Your task to perform on an android device: turn on javascript in the chrome app Image 0: 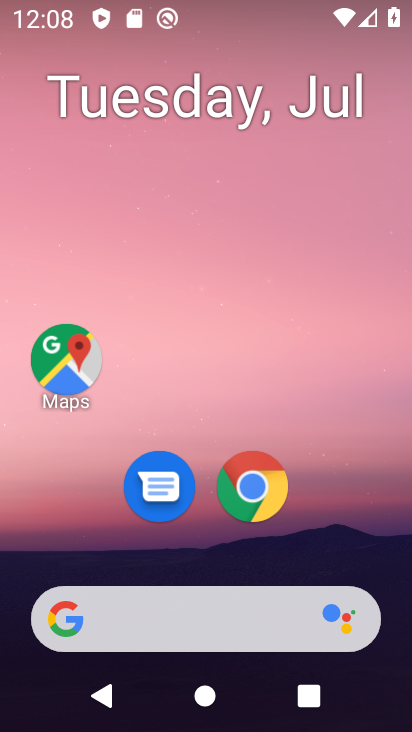
Step 0: drag from (322, 526) to (358, 104)
Your task to perform on an android device: turn on javascript in the chrome app Image 1: 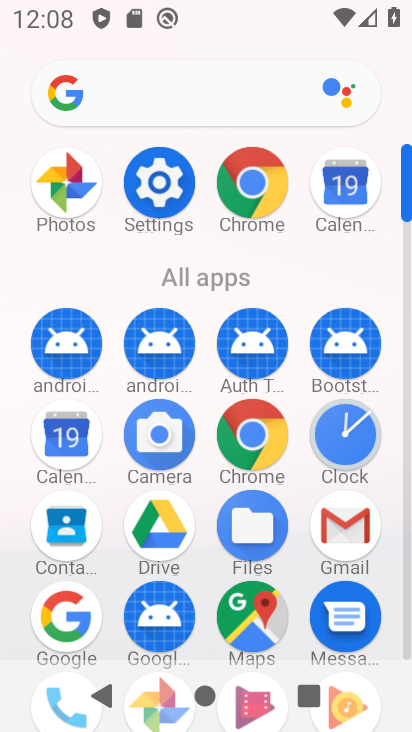
Step 1: click (252, 186)
Your task to perform on an android device: turn on javascript in the chrome app Image 2: 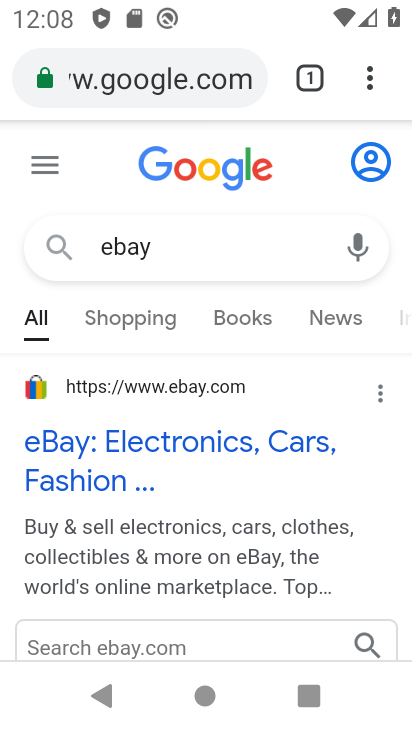
Step 2: click (371, 86)
Your task to perform on an android device: turn on javascript in the chrome app Image 3: 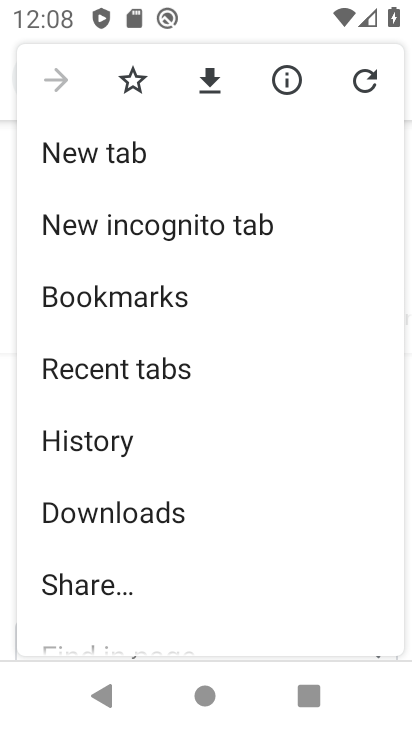
Step 3: drag from (317, 559) to (337, 235)
Your task to perform on an android device: turn on javascript in the chrome app Image 4: 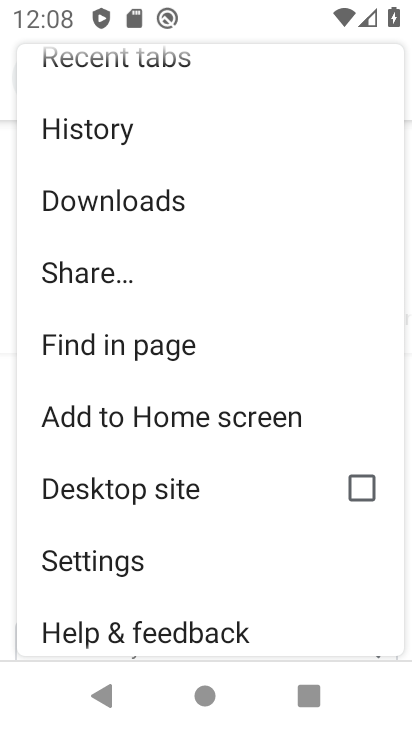
Step 4: drag from (267, 537) to (308, 292)
Your task to perform on an android device: turn on javascript in the chrome app Image 5: 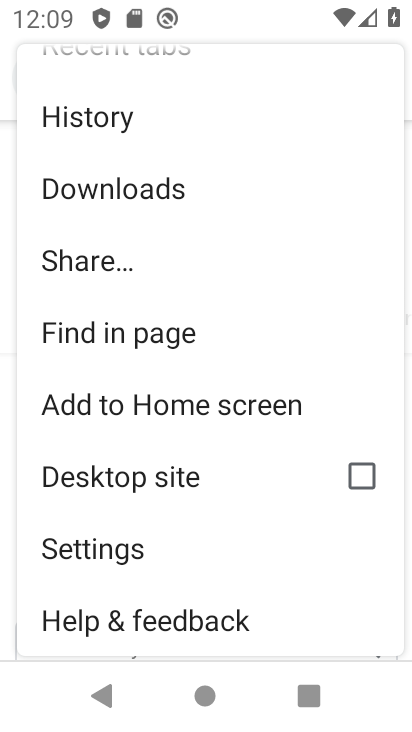
Step 5: click (146, 555)
Your task to perform on an android device: turn on javascript in the chrome app Image 6: 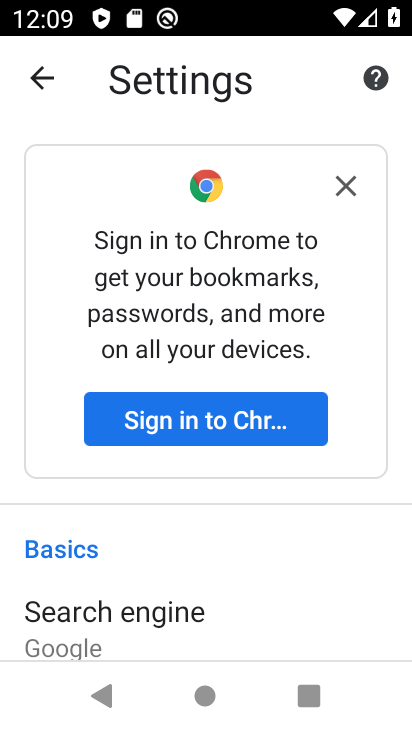
Step 6: click (336, 186)
Your task to perform on an android device: turn on javascript in the chrome app Image 7: 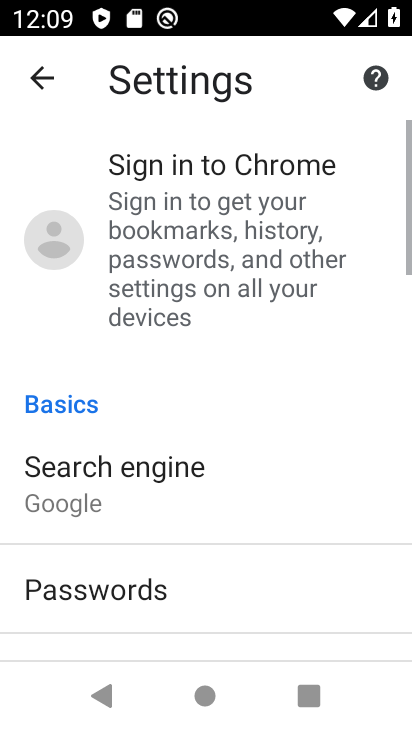
Step 7: drag from (323, 528) to (331, 380)
Your task to perform on an android device: turn on javascript in the chrome app Image 8: 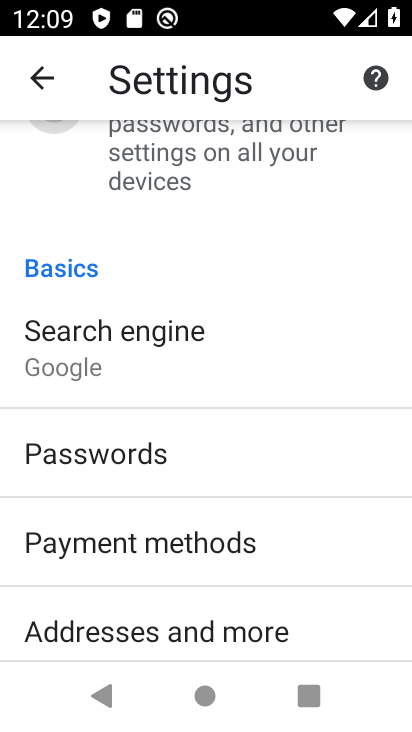
Step 8: drag from (330, 532) to (330, 413)
Your task to perform on an android device: turn on javascript in the chrome app Image 9: 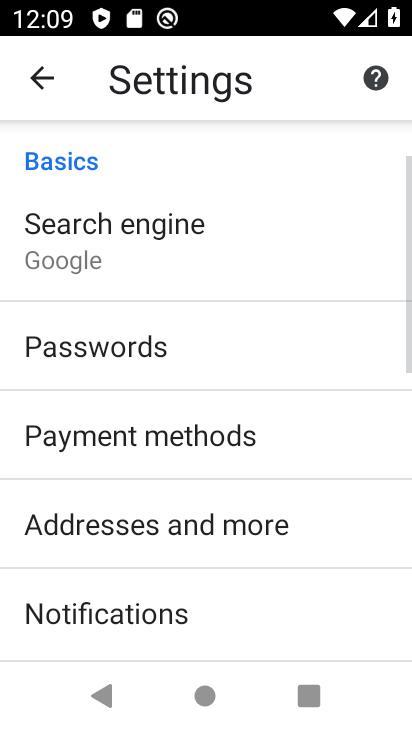
Step 9: drag from (335, 577) to (341, 436)
Your task to perform on an android device: turn on javascript in the chrome app Image 10: 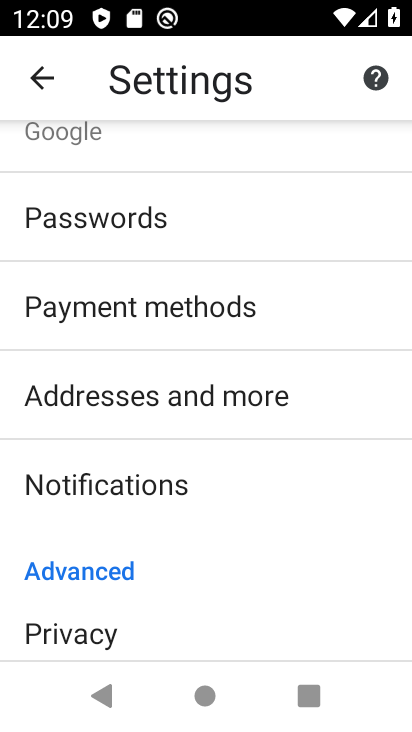
Step 10: drag from (323, 575) to (333, 405)
Your task to perform on an android device: turn on javascript in the chrome app Image 11: 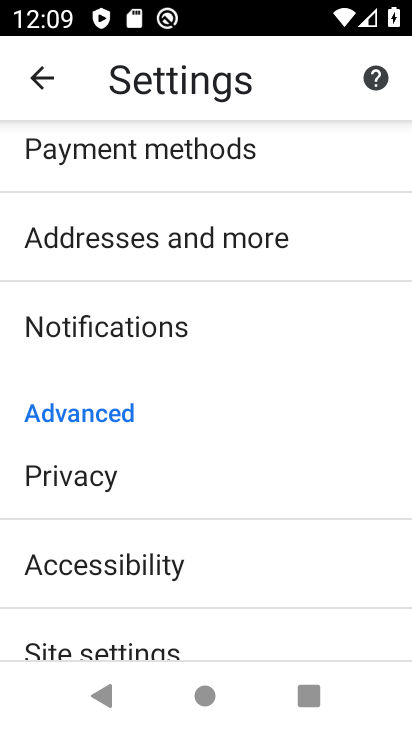
Step 11: drag from (313, 551) to (313, 418)
Your task to perform on an android device: turn on javascript in the chrome app Image 12: 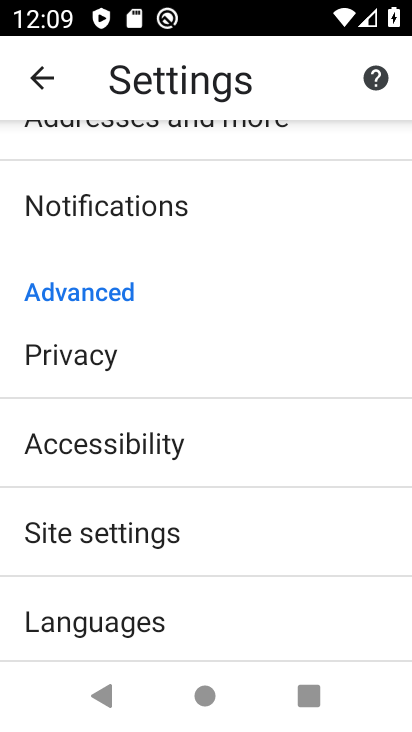
Step 12: click (289, 538)
Your task to perform on an android device: turn on javascript in the chrome app Image 13: 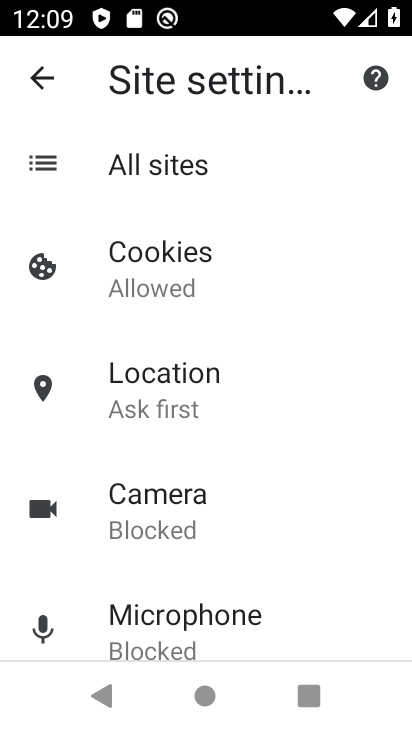
Step 13: drag from (290, 502) to (296, 405)
Your task to perform on an android device: turn on javascript in the chrome app Image 14: 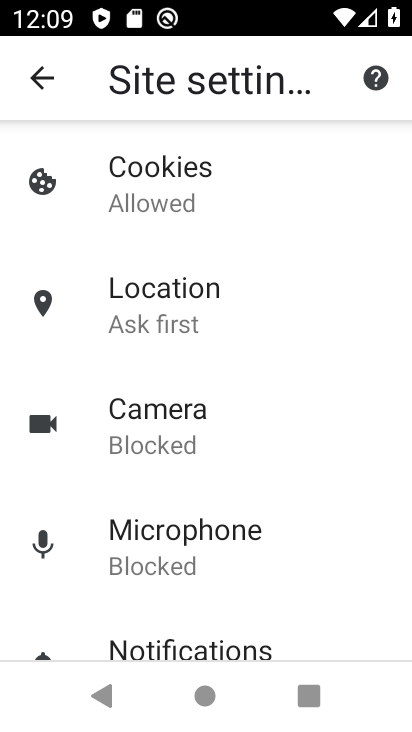
Step 14: drag from (310, 530) to (315, 395)
Your task to perform on an android device: turn on javascript in the chrome app Image 15: 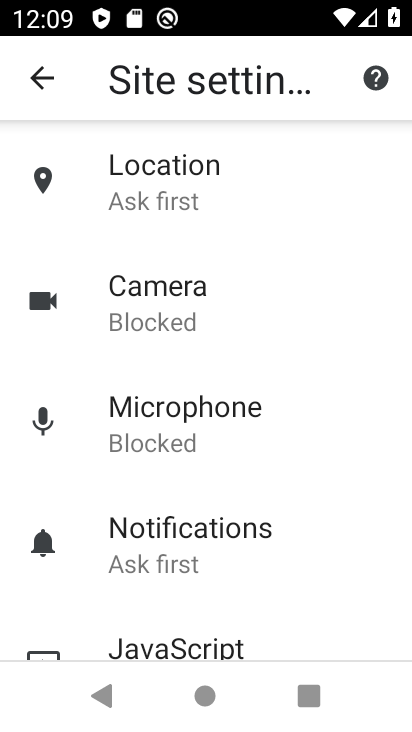
Step 15: drag from (328, 580) to (336, 455)
Your task to perform on an android device: turn on javascript in the chrome app Image 16: 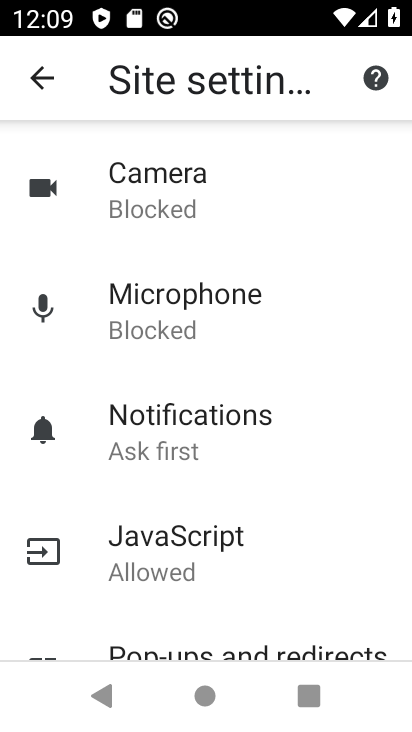
Step 16: drag from (318, 572) to (334, 444)
Your task to perform on an android device: turn on javascript in the chrome app Image 17: 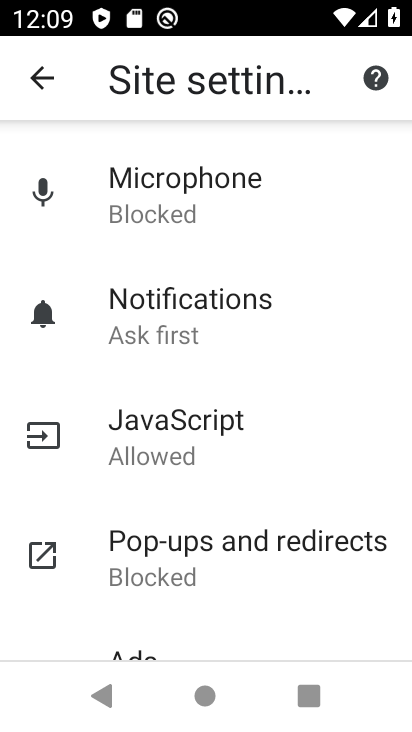
Step 17: click (238, 452)
Your task to perform on an android device: turn on javascript in the chrome app Image 18: 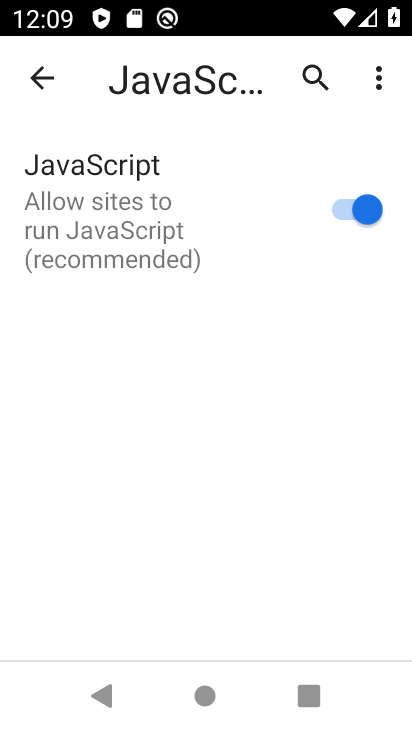
Step 18: task complete